Your task to perform on an android device: Go to calendar. Show me events next week Image 0: 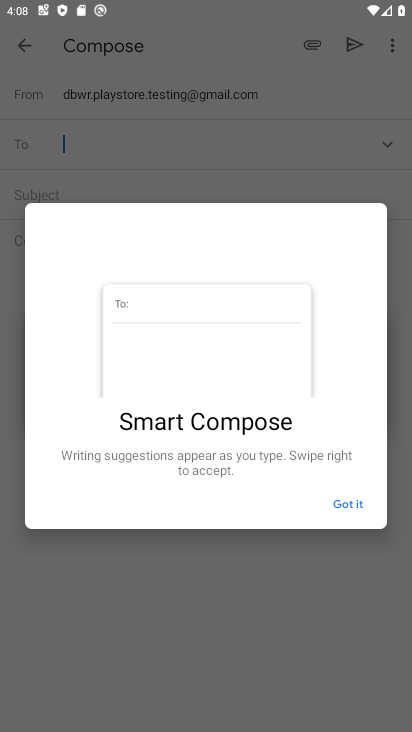
Step 0: press back button
Your task to perform on an android device: Go to calendar. Show me events next week Image 1: 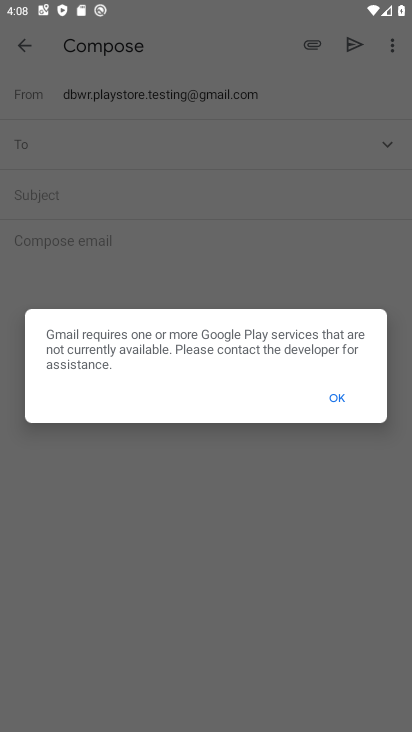
Step 1: press back button
Your task to perform on an android device: Go to calendar. Show me events next week Image 2: 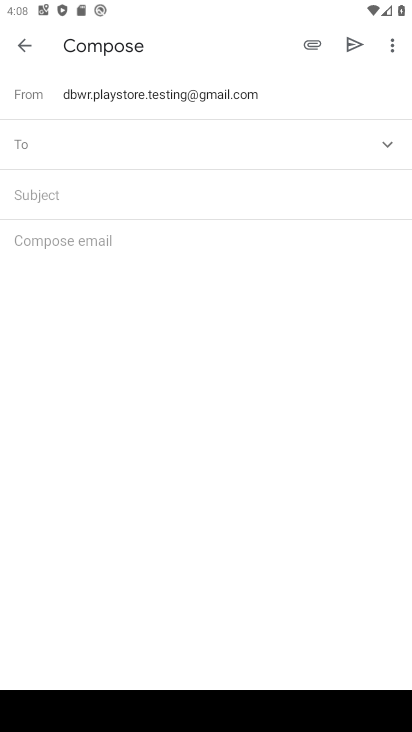
Step 2: press back button
Your task to perform on an android device: Go to calendar. Show me events next week Image 3: 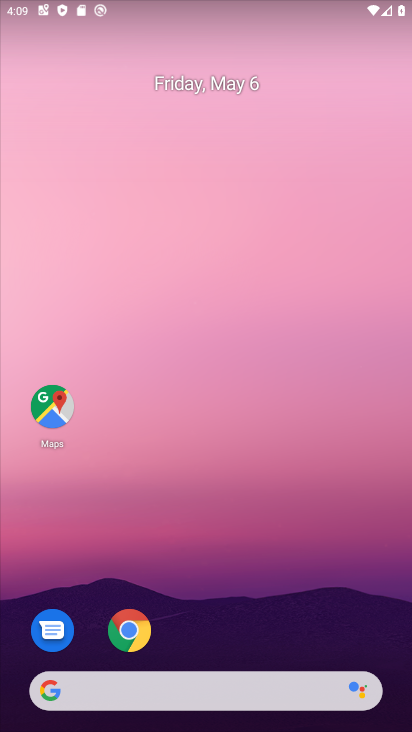
Step 3: drag from (226, 480) to (295, 0)
Your task to perform on an android device: Go to calendar. Show me events next week Image 4: 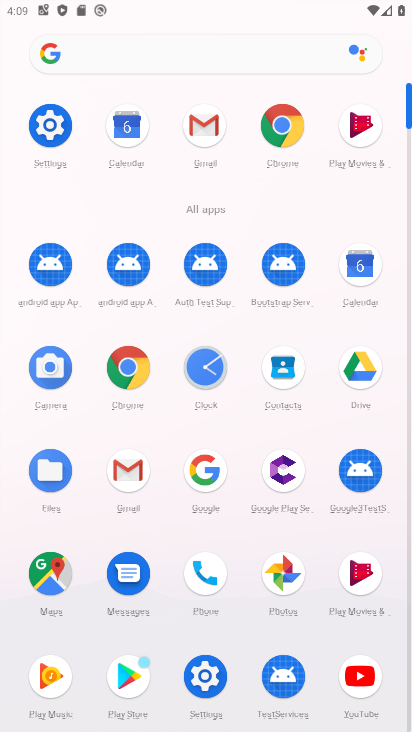
Step 4: click (365, 269)
Your task to perform on an android device: Go to calendar. Show me events next week Image 5: 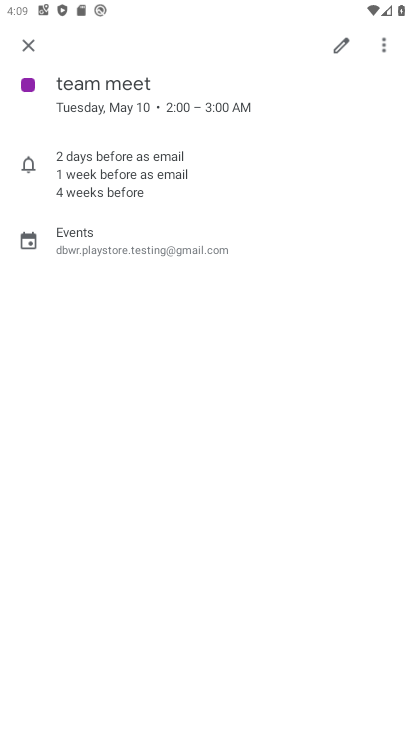
Step 5: click (32, 41)
Your task to perform on an android device: Go to calendar. Show me events next week Image 6: 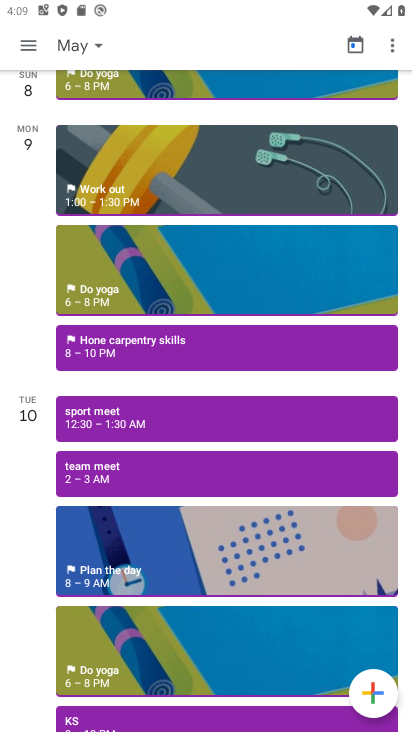
Step 6: click (100, 43)
Your task to perform on an android device: Go to calendar. Show me events next week Image 7: 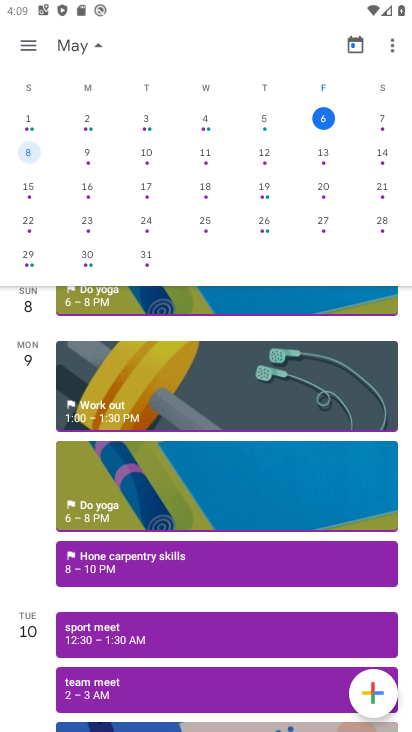
Step 7: click (84, 153)
Your task to perform on an android device: Go to calendar. Show me events next week Image 8: 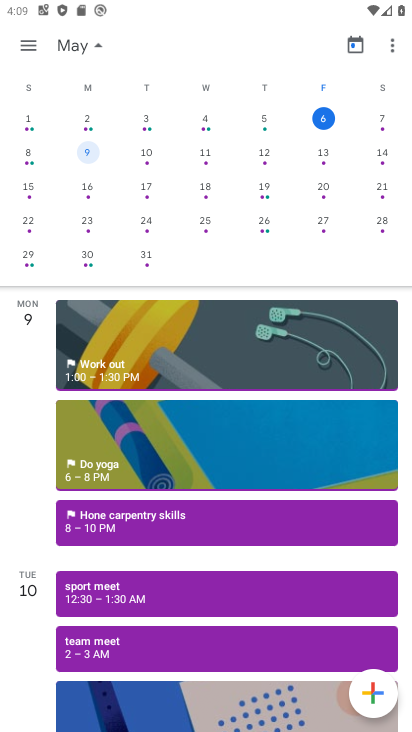
Step 8: drag from (177, 576) to (222, 318)
Your task to perform on an android device: Go to calendar. Show me events next week Image 9: 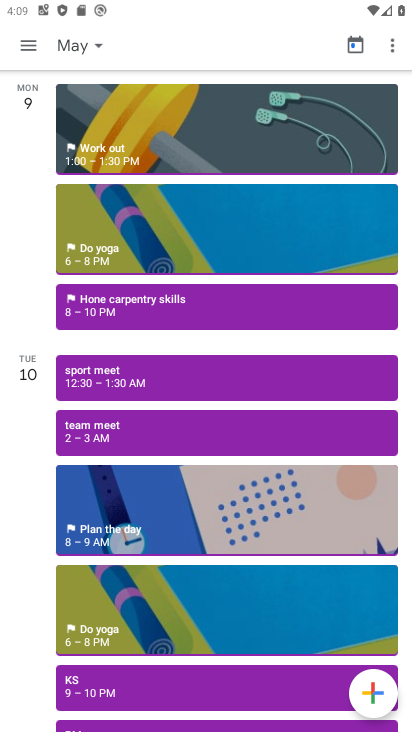
Step 9: click (121, 630)
Your task to perform on an android device: Go to calendar. Show me events next week Image 10: 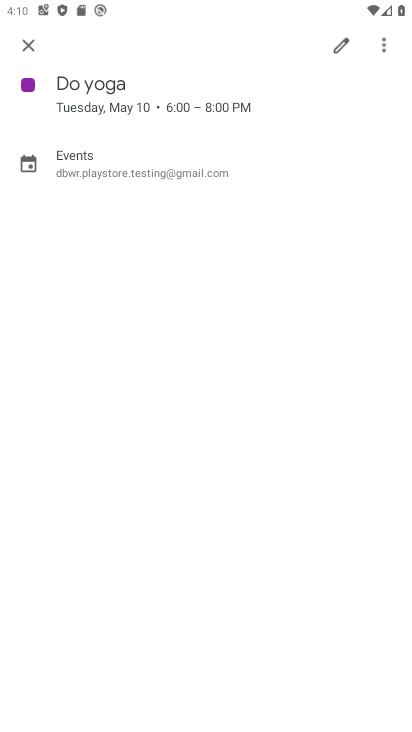
Step 10: task complete